Your task to perform on an android device: make emails show in primary in the gmail app Image 0: 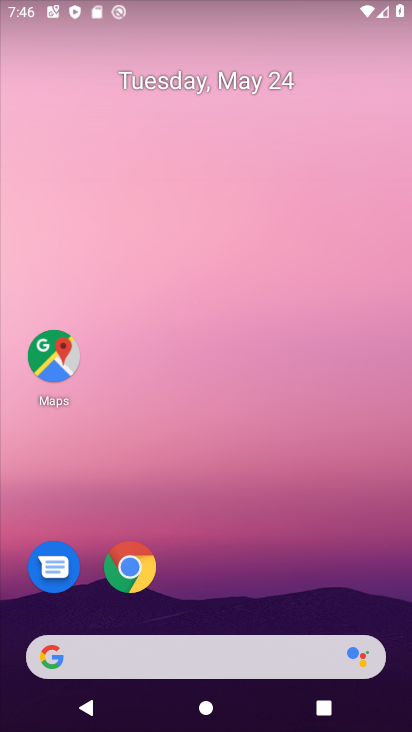
Step 0: drag from (291, 417) to (270, 40)
Your task to perform on an android device: make emails show in primary in the gmail app Image 1: 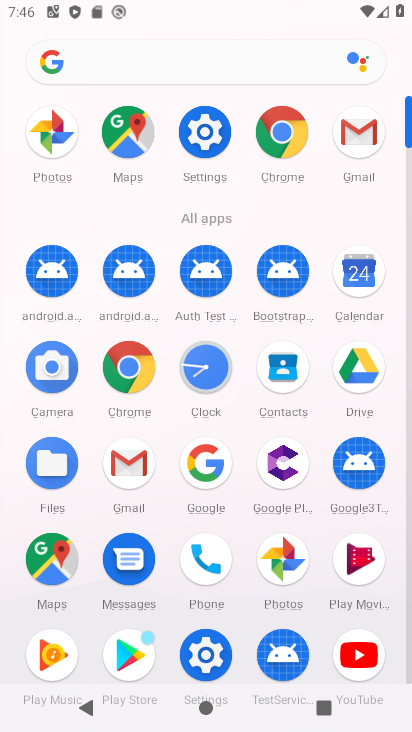
Step 1: click (350, 154)
Your task to perform on an android device: make emails show in primary in the gmail app Image 2: 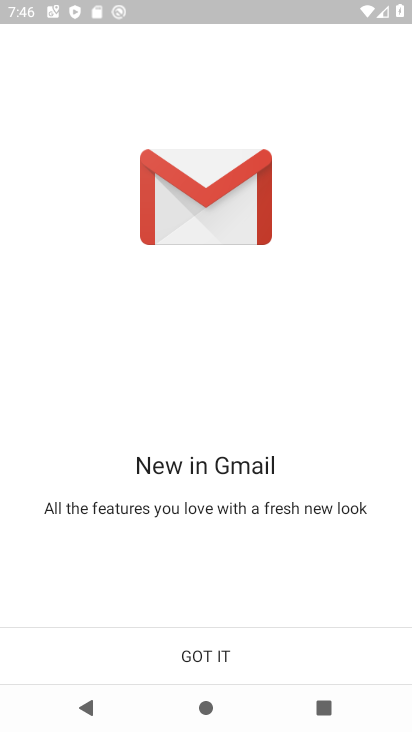
Step 2: click (158, 657)
Your task to perform on an android device: make emails show in primary in the gmail app Image 3: 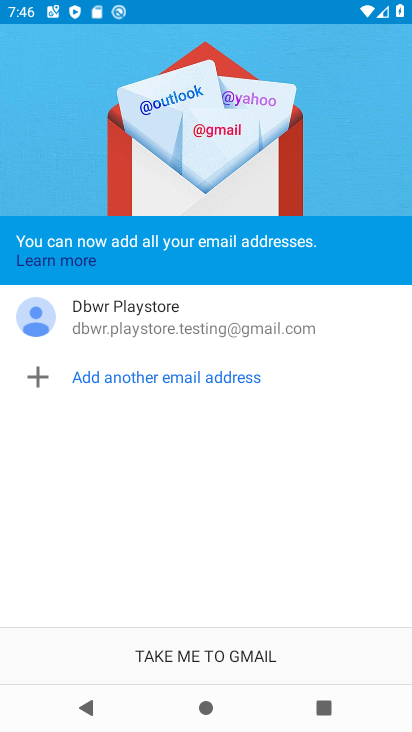
Step 3: click (186, 657)
Your task to perform on an android device: make emails show in primary in the gmail app Image 4: 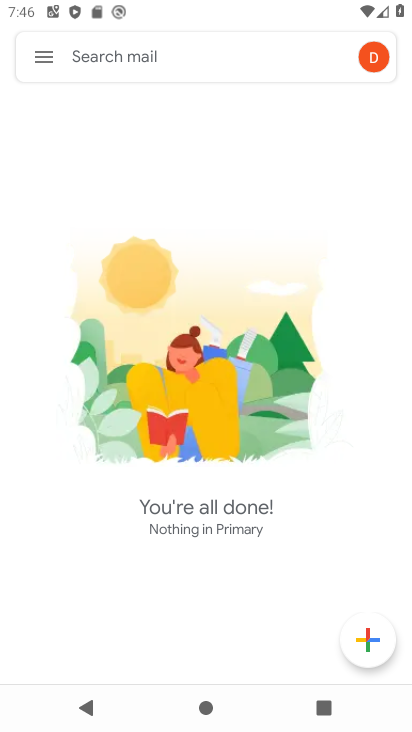
Step 4: click (45, 53)
Your task to perform on an android device: make emails show in primary in the gmail app Image 5: 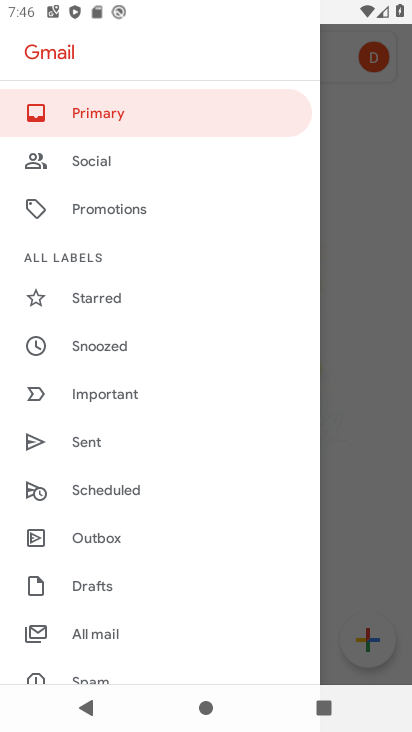
Step 5: click (131, 108)
Your task to perform on an android device: make emails show in primary in the gmail app Image 6: 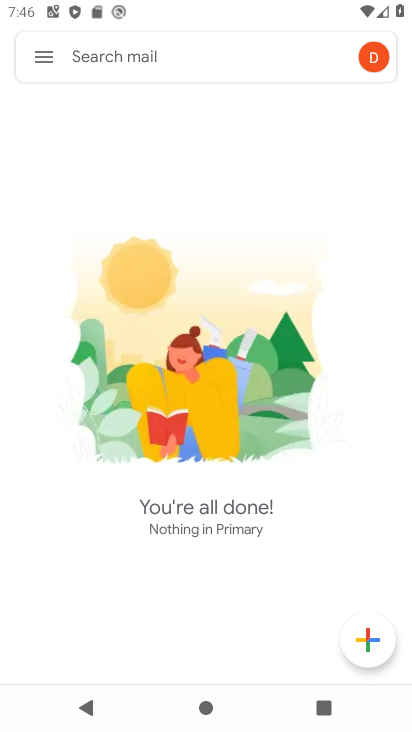
Step 6: task complete